Your task to perform on an android device: Open Chrome and go to the settings page Image 0: 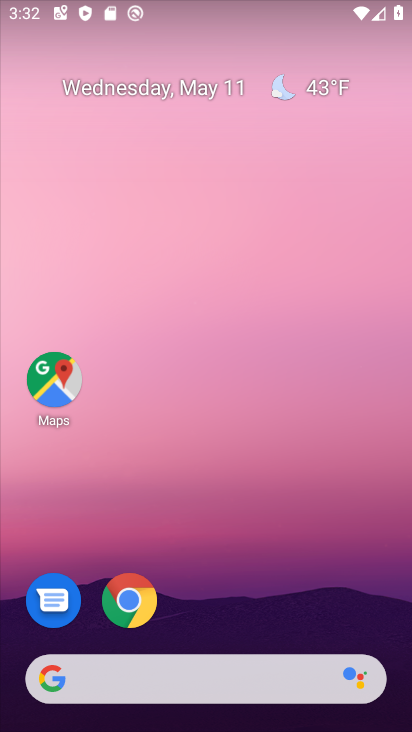
Step 0: click (134, 609)
Your task to perform on an android device: Open Chrome and go to the settings page Image 1: 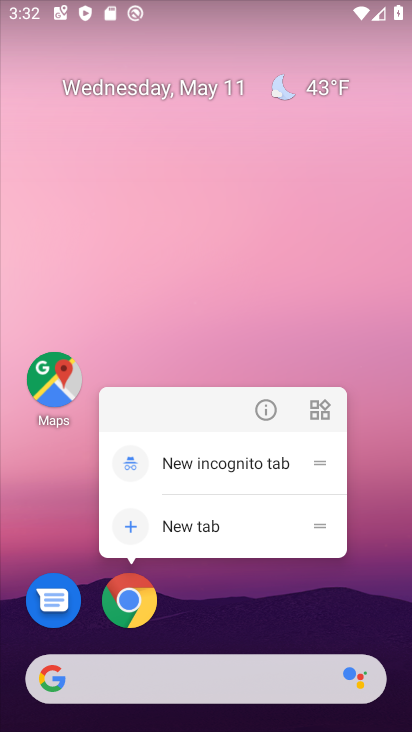
Step 1: click (123, 605)
Your task to perform on an android device: Open Chrome and go to the settings page Image 2: 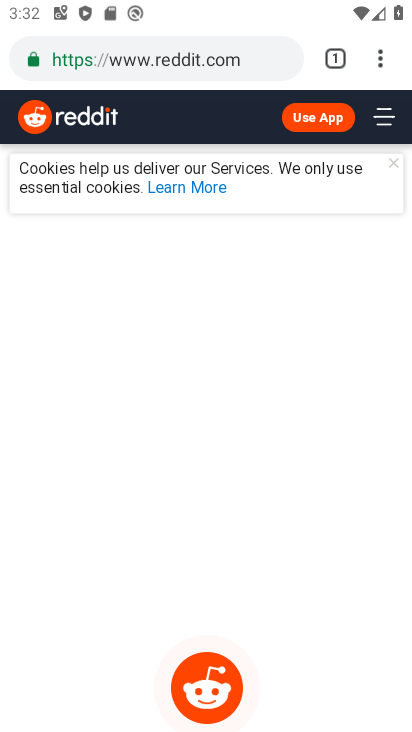
Step 2: task complete